Your task to perform on an android device: remove spam from my inbox in the gmail app Image 0: 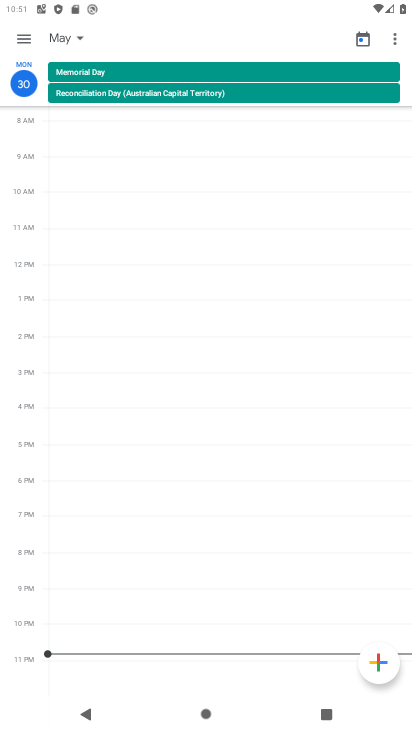
Step 0: press back button
Your task to perform on an android device: remove spam from my inbox in the gmail app Image 1: 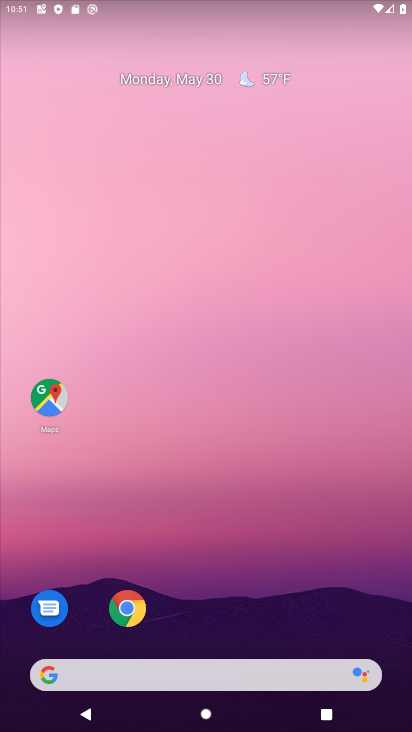
Step 1: drag from (292, 565) to (215, 10)
Your task to perform on an android device: remove spam from my inbox in the gmail app Image 2: 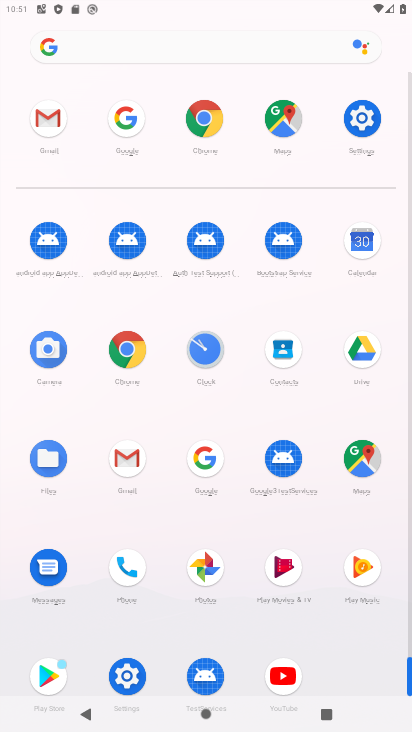
Step 2: drag from (0, 549) to (2, 222)
Your task to perform on an android device: remove spam from my inbox in the gmail app Image 3: 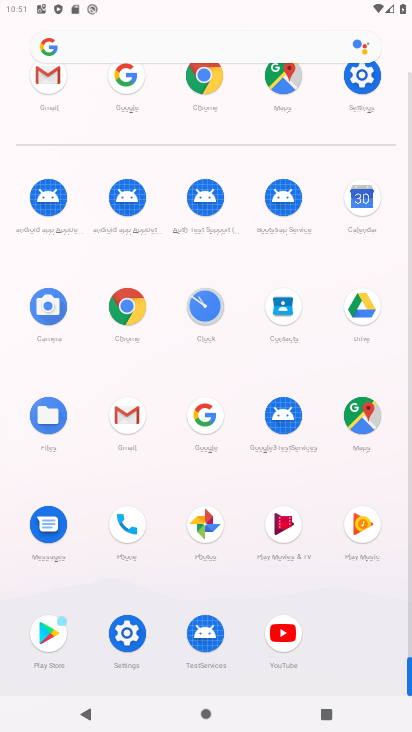
Step 3: click (127, 407)
Your task to perform on an android device: remove spam from my inbox in the gmail app Image 4: 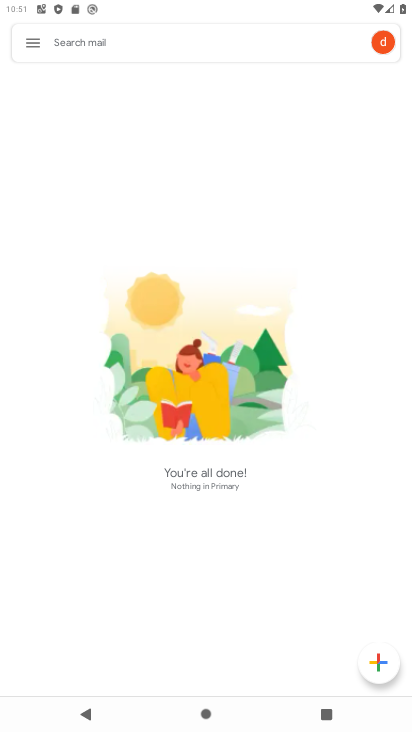
Step 4: click (38, 39)
Your task to perform on an android device: remove spam from my inbox in the gmail app Image 5: 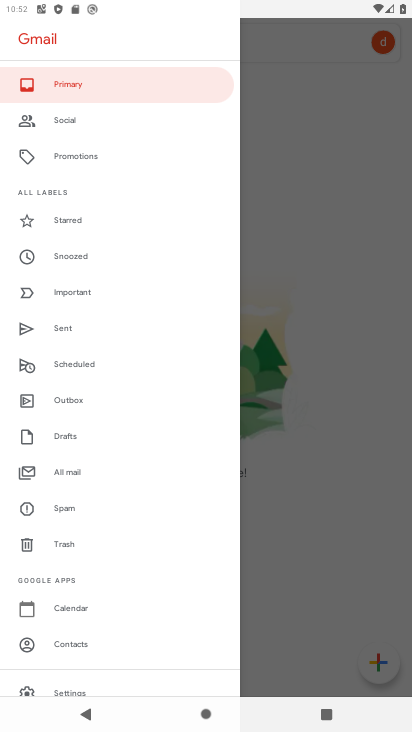
Step 5: click (73, 509)
Your task to perform on an android device: remove spam from my inbox in the gmail app Image 6: 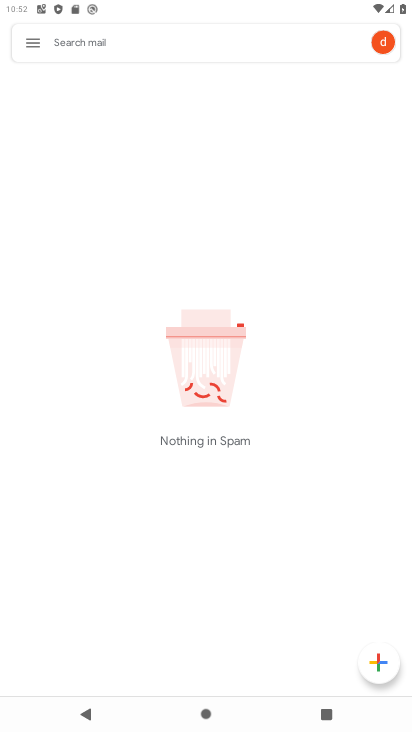
Step 6: task complete